Your task to perform on an android device: toggle airplane mode Image 0: 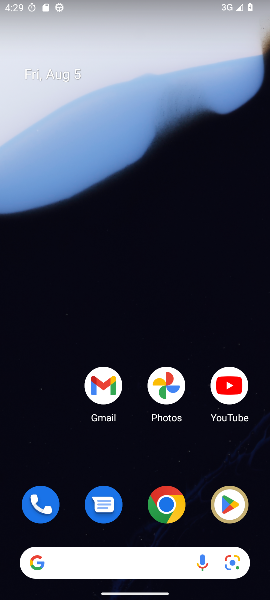
Step 0: drag from (22, 590) to (197, 141)
Your task to perform on an android device: toggle airplane mode Image 1: 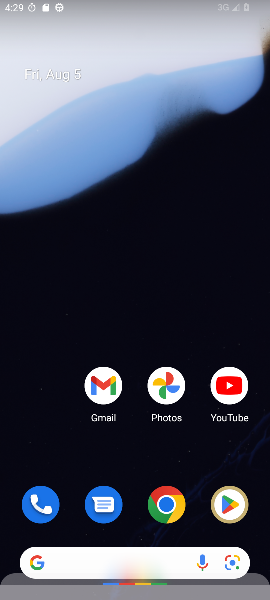
Step 1: click (197, 141)
Your task to perform on an android device: toggle airplane mode Image 2: 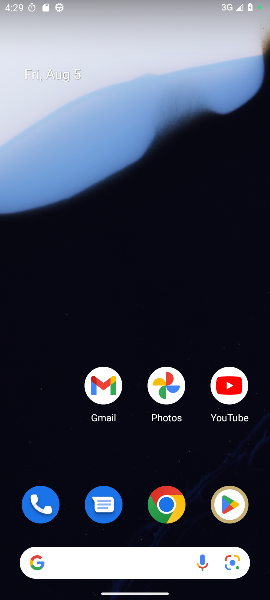
Step 2: task complete